Your task to perform on an android device: turn on bluetooth scan Image 0: 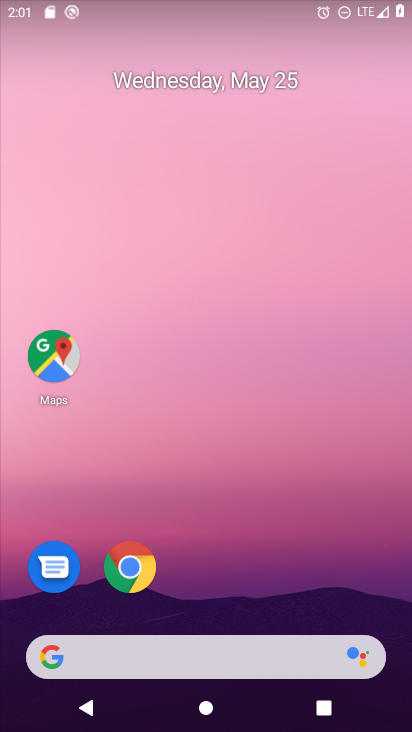
Step 0: drag from (377, 518) to (348, 310)
Your task to perform on an android device: turn on bluetooth scan Image 1: 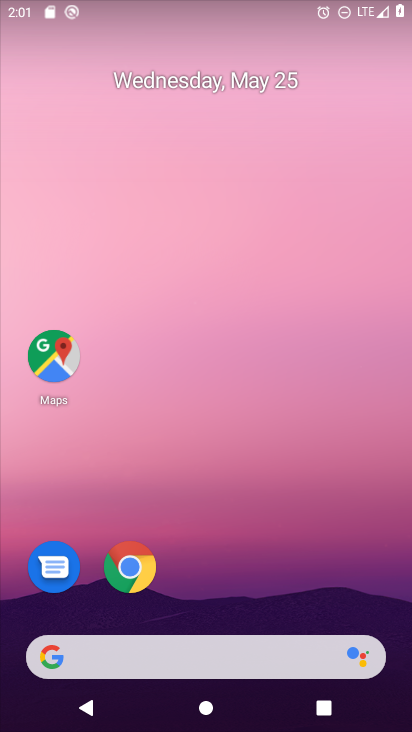
Step 1: drag from (400, 694) to (403, 246)
Your task to perform on an android device: turn on bluetooth scan Image 2: 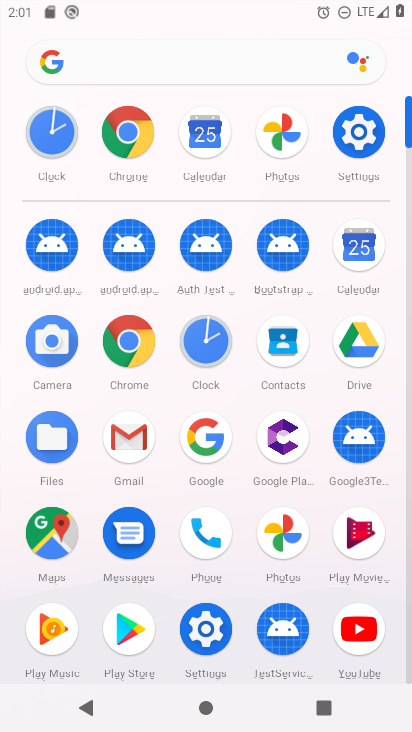
Step 2: click (352, 127)
Your task to perform on an android device: turn on bluetooth scan Image 3: 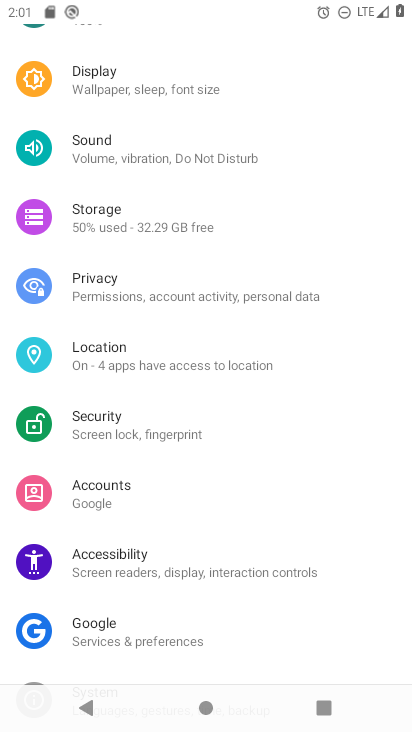
Step 3: drag from (317, 121) to (315, 455)
Your task to perform on an android device: turn on bluetooth scan Image 4: 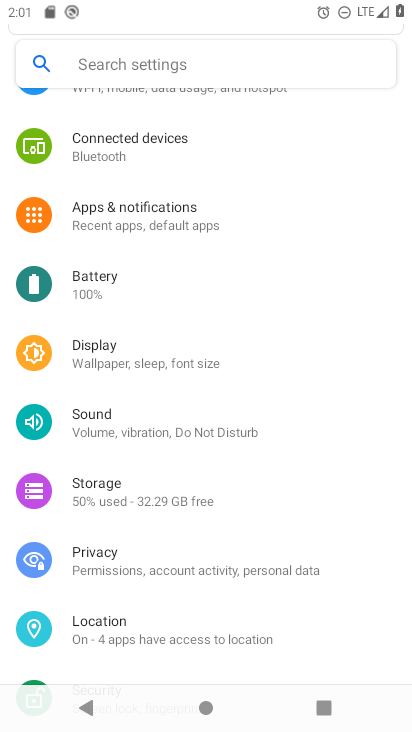
Step 4: click (110, 628)
Your task to perform on an android device: turn on bluetooth scan Image 5: 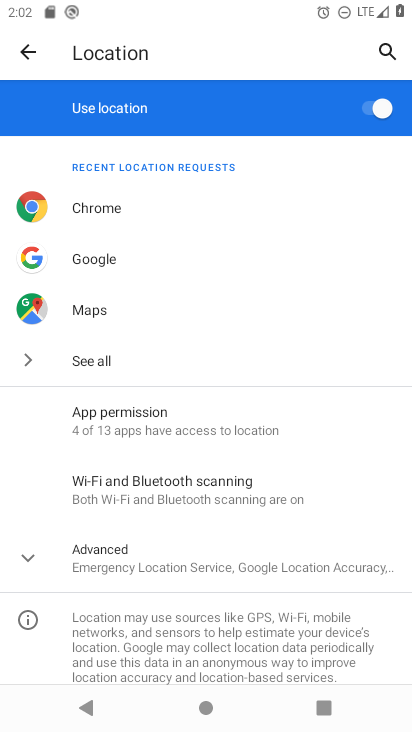
Step 5: click (134, 499)
Your task to perform on an android device: turn on bluetooth scan Image 6: 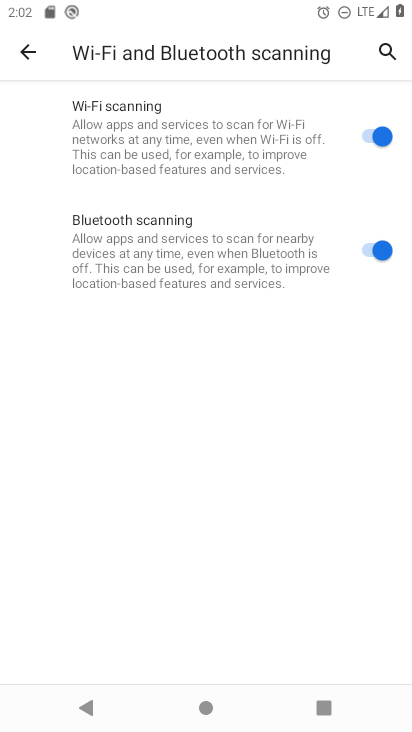
Step 6: task complete